Your task to perform on an android device: change timer sound Image 0: 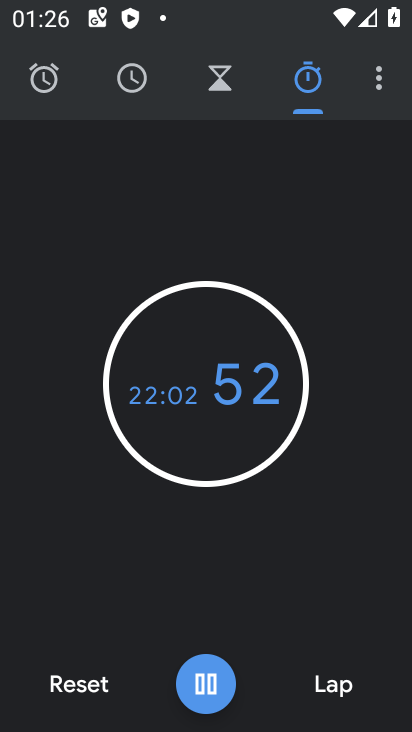
Step 0: press home button
Your task to perform on an android device: change timer sound Image 1: 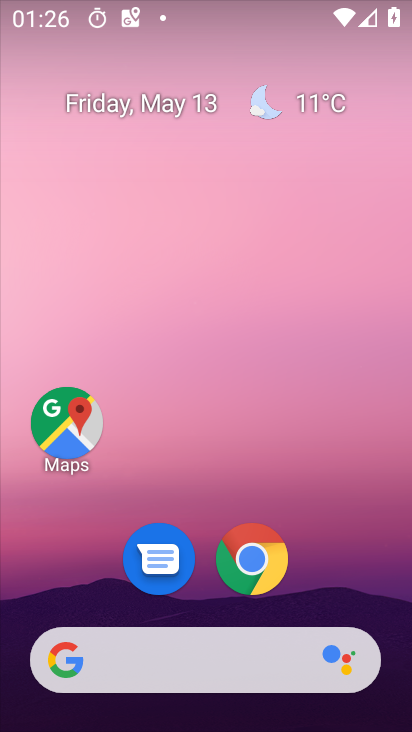
Step 1: drag from (342, 557) to (323, 81)
Your task to perform on an android device: change timer sound Image 2: 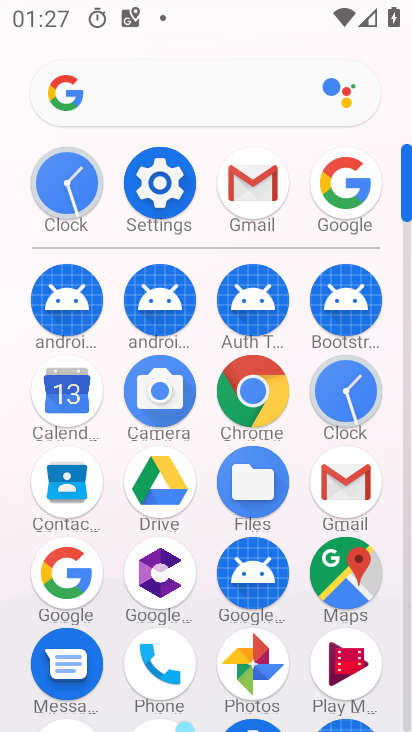
Step 2: click (350, 378)
Your task to perform on an android device: change timer sound Image 3: 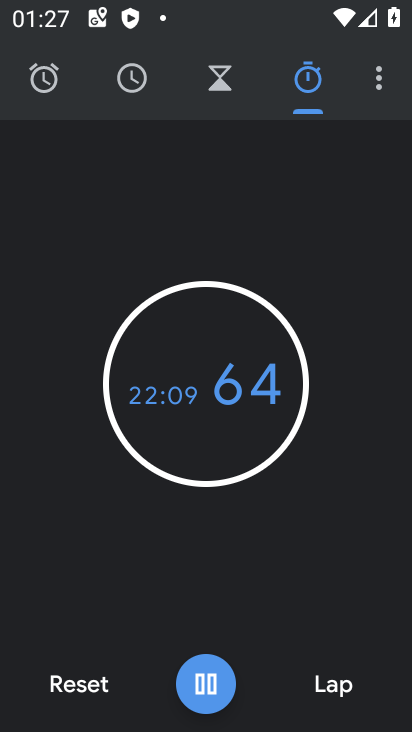
Step 3: click (372, 77)
Your task to perform on an android device: change timer sound Image 4: 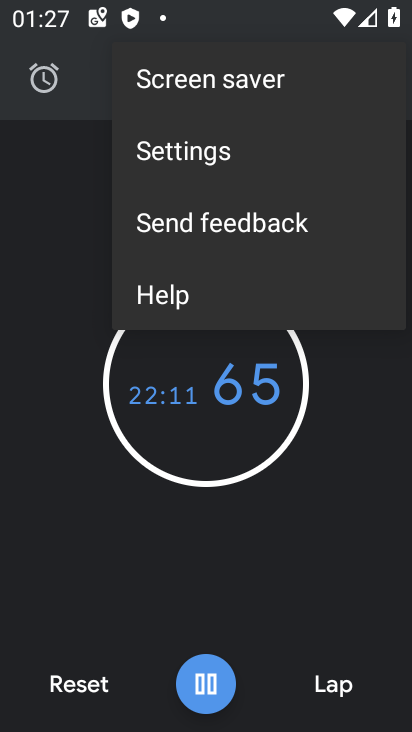
Step 4: click (234, 167)
Your task to perform on an android device: change timer sound Image 5: 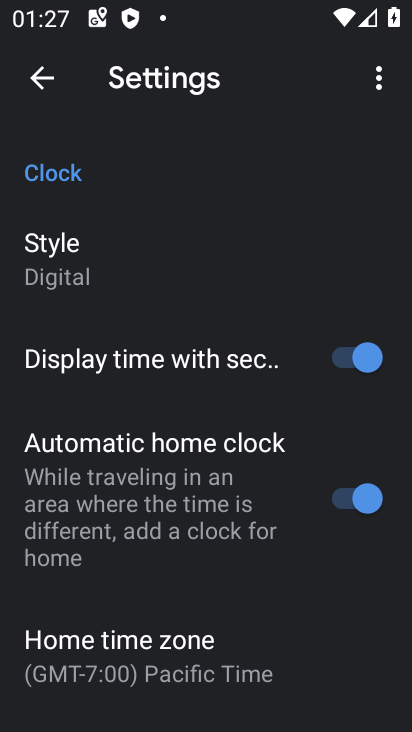
Step 5: drag from (164, 658) to (229, 164)
Your task to perform on an android device: change timer sound Image 6: 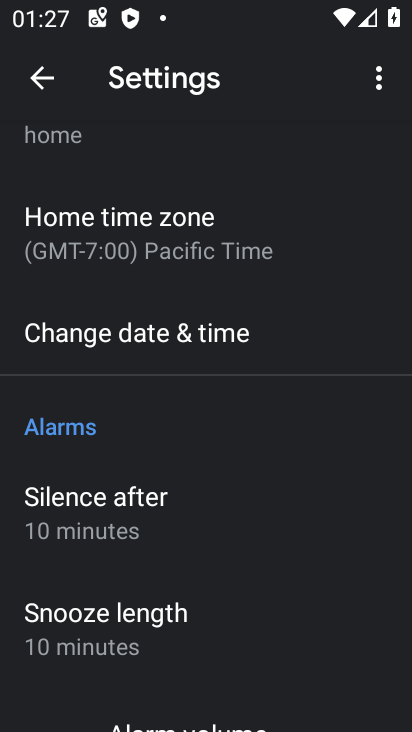
Step 6: drag from (200, 660) to (242, 213)
Your task to perform on an android device: change timer sound Image 7: 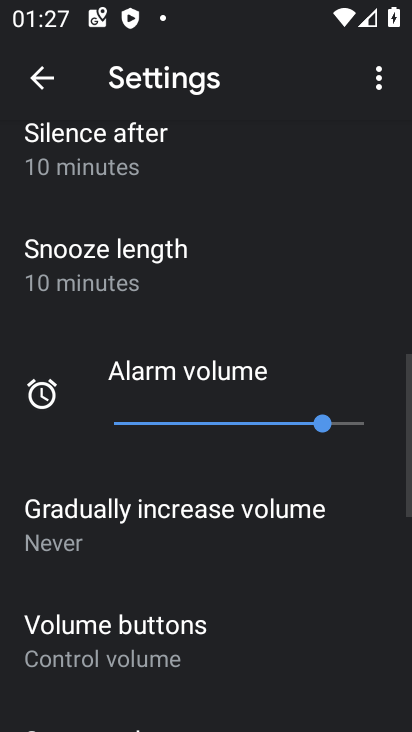
Step 7: drag from (220, 635) to (224, 193)
Your task to perform on an android device: change timer sound Image 8: 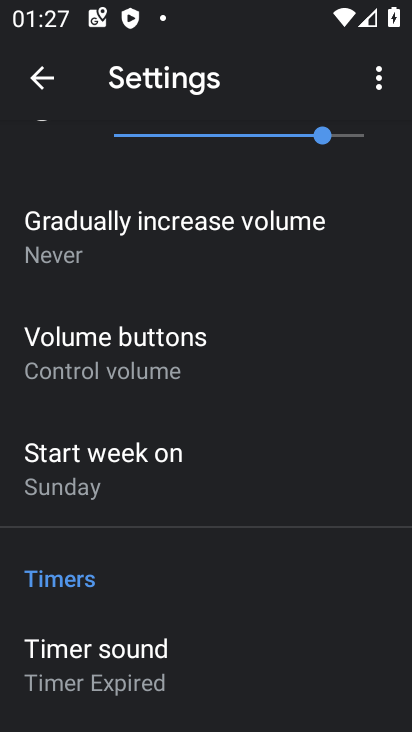
Step 8: drag from (160, 651) to (172, 328)
Your task to perform on an android device: change timer sound Image 9: 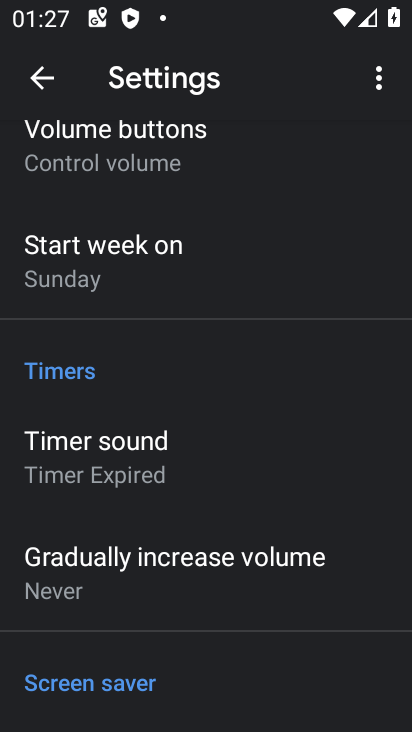
Step 9: click (148, 435)
Your task to perform on an android device: change timer sound Image 10: 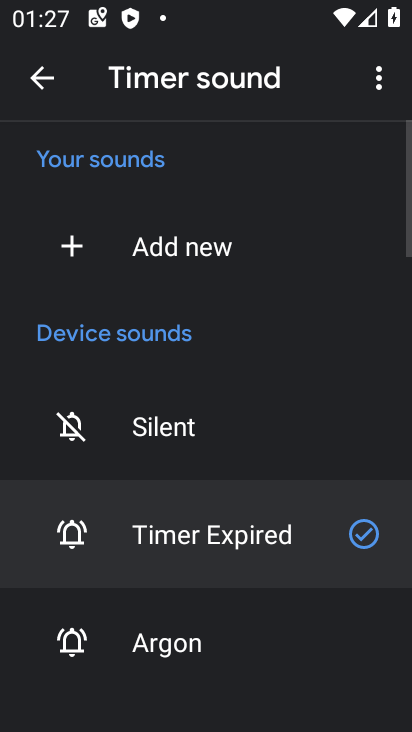
Step 10: click (173, 648)
Your task to perform on an android device: change timer sound Image 11: 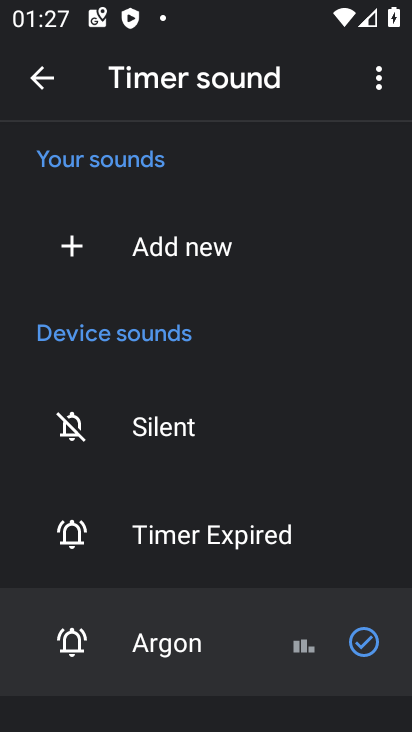
Step 11: task complete